Your task to perform on an android device: Searchfor good French restaurants Image 0: 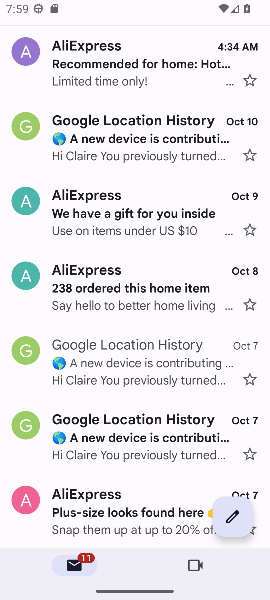
Step 0: press home button
Your task to perform on an android device: Searchfor good French restaurants Image 1: 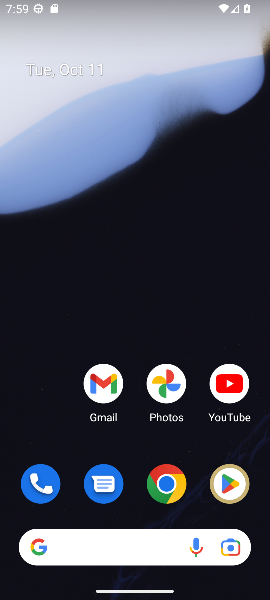
Step 1: drag from (91, 257) to (160, 46)
Your task to perform on an android device: Searchfor good French restaurants Image 2: 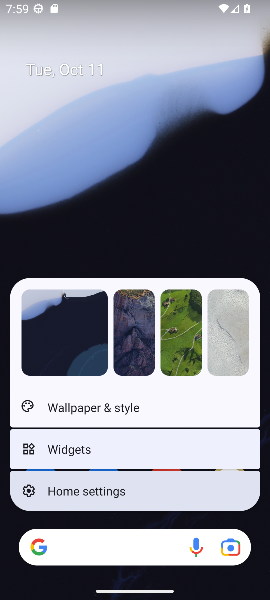
Step 2: drag from (185, 192) to (230, 69)
Your task to perform on an android device: Searchfor good French restaurants Image 3: 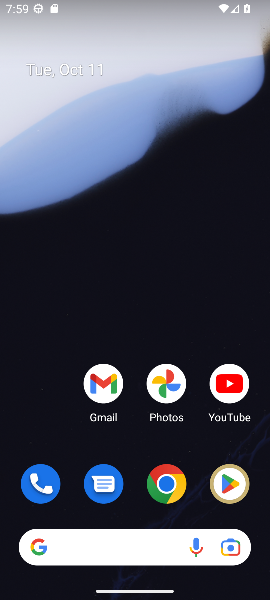
Step 3: click (180, 194)
Your task to perform on an android device: Searchfor good French restaurants Image 4: 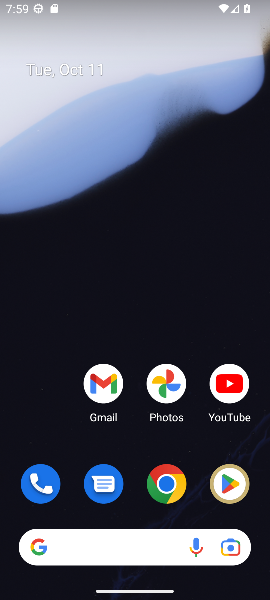
Step 4: drag from (144, 516) to (217, 56)
Your task to perform on an android device: Searchfor good French restaurants Image 5: 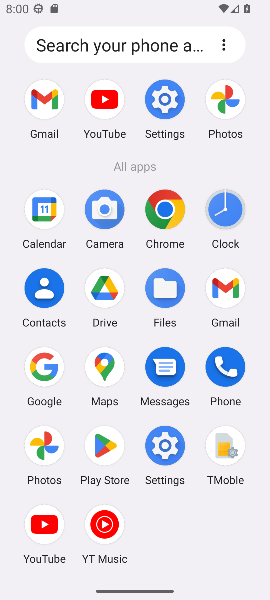
Step 5: click (225, 296)
Your task to perform on an android device: Searchfor good French restaurants Image 6: 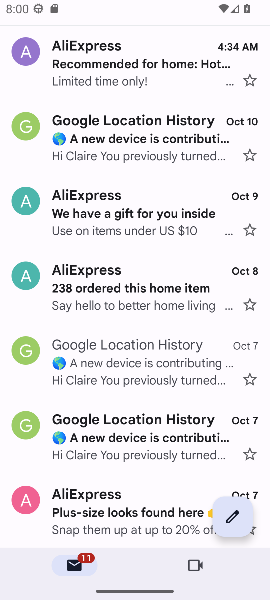
Step 6: press home button
Your task to perform on an android device: Searchfor good French restaurants Image 7: 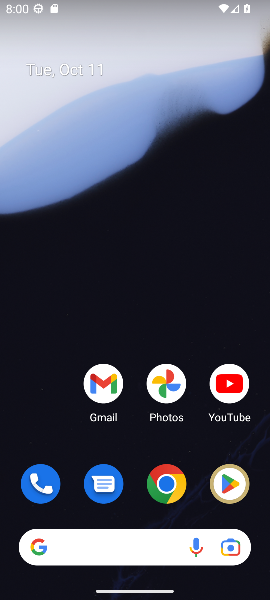
Step 7: drag from (129, 419) to (188, 28)
Your task to perform on an android device: Searchfor good French restaurants Image 8: 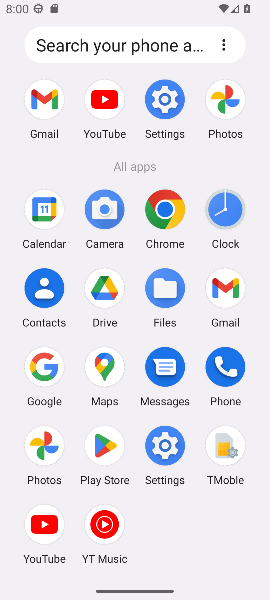
Step 8: click (162, 207)
Your task to perform on an android device: Searchfor good French restaurants Image 9: 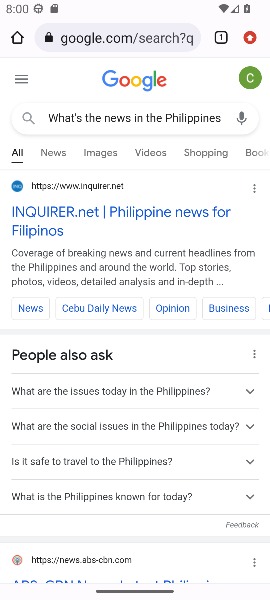
Step 9: click (143, 46)
Your task to perform on an android device: Searchfor good French restaurants Image 10: 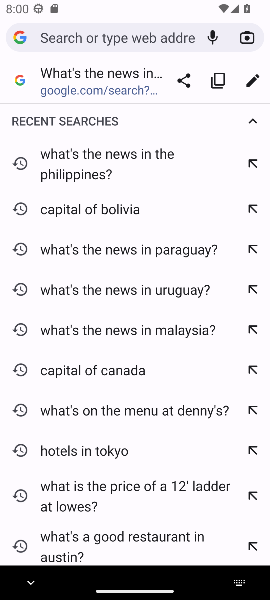
Step 10: type "good French restaurants"
Your task to perform on an android device: Searchfor good French restaurants Image 11: 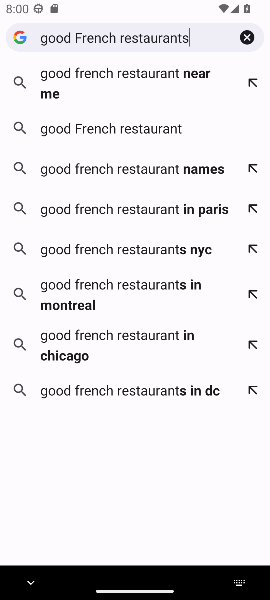
Step 11: press enter
Your task to perform on an android device: Searchfor good French restaurants Image 12: 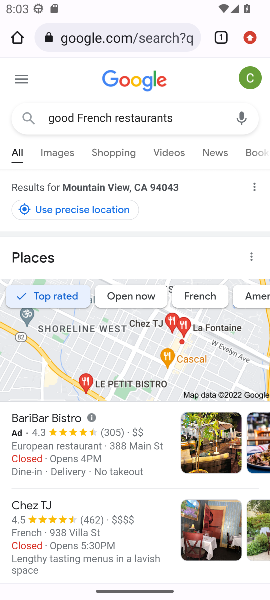
Step 12: task complete